Your task to perform on an android device: Turn off the flashlight Image 0: 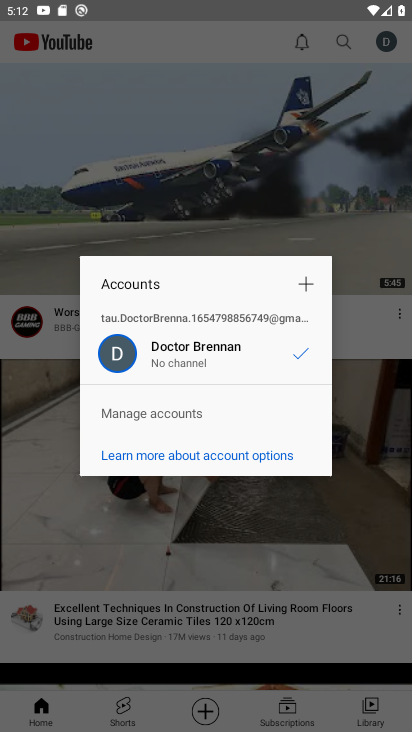
Step 0: press home button
Your task to perform on an android device: Turn off the flashlight Image 1: 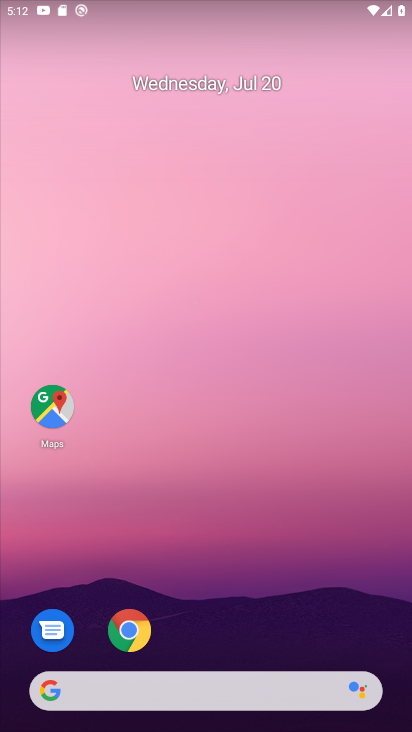
Step 1: task complete